Your task to perform on an android device: Open maps Image 0: 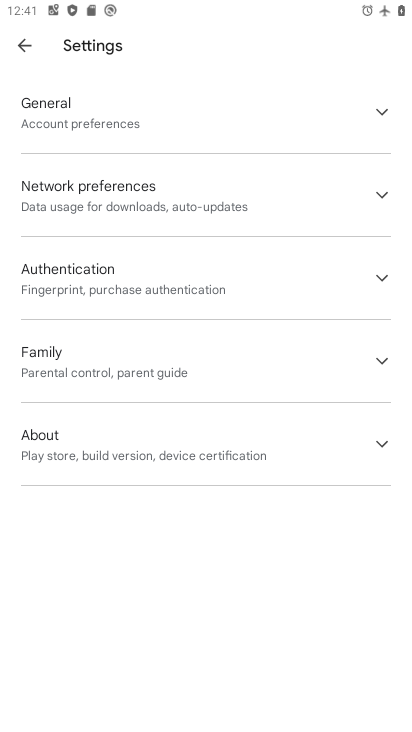
Step 0: press home button
Your task to perform on an android device: Open maps Image 1: 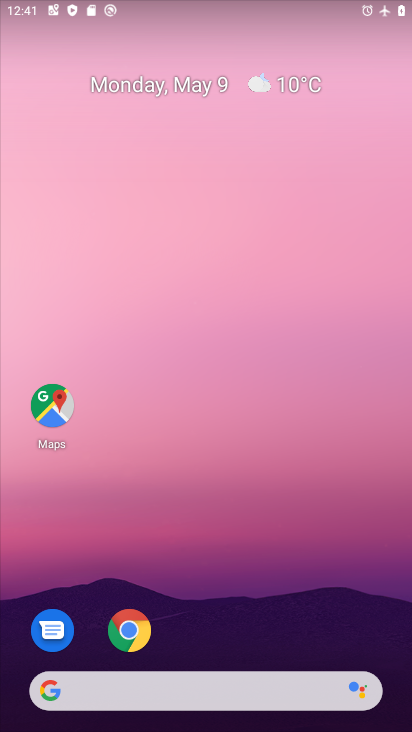
Step 1: drag from (334, 499) to (281, 168)
Your task to perform on an android device: Open maps Image 2: 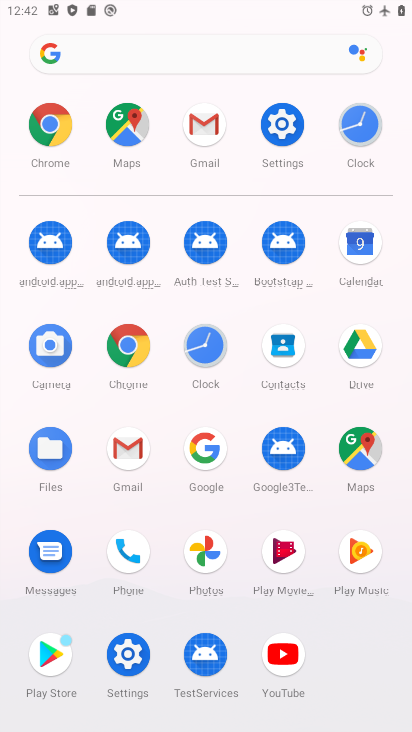
Step 2: click (362, 449)
Your task to perform on an android device: Open maps Image 3: 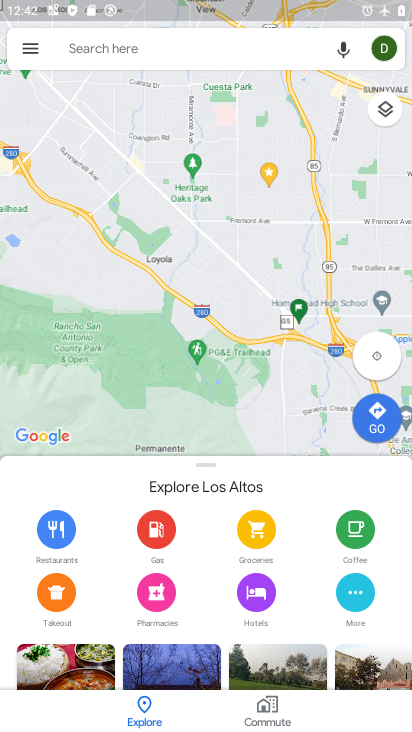
Step 3: task complete